Your task to perform on an android device: Open CNN.com Image 0: 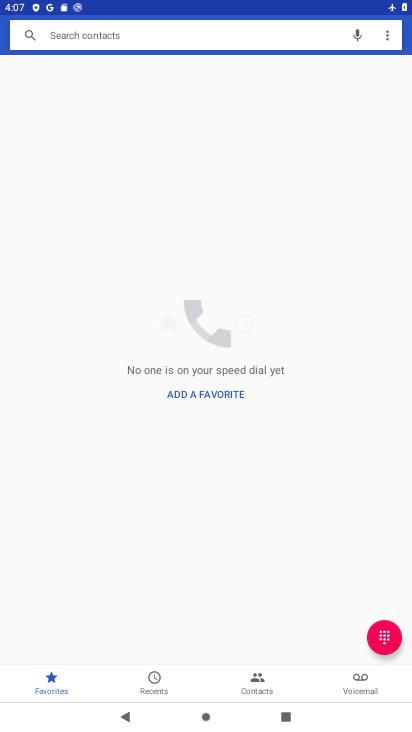
Step 0: press home button
Your task to perform on an android device: Open CNN.com Image 1: 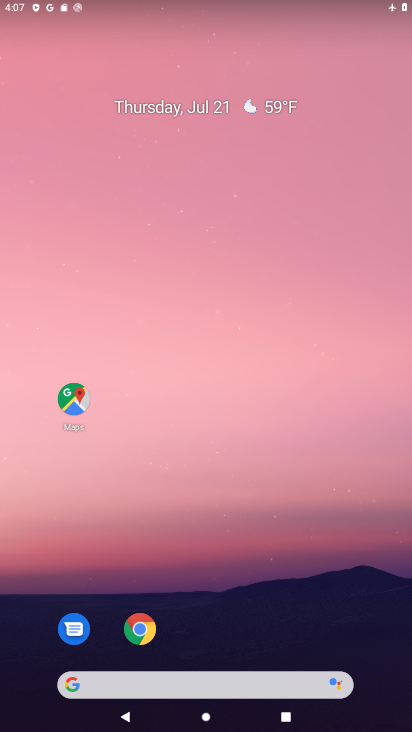
Step 1: click (223, 681)
Your task to perform on an android device: Open CNN.com Image 2: 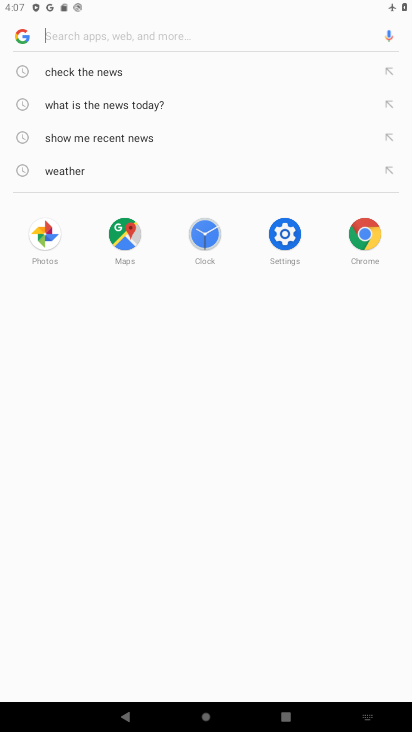
Step 2: type "cnn.com"
Your task to perform on an android device: Open CNN.com Image 3: 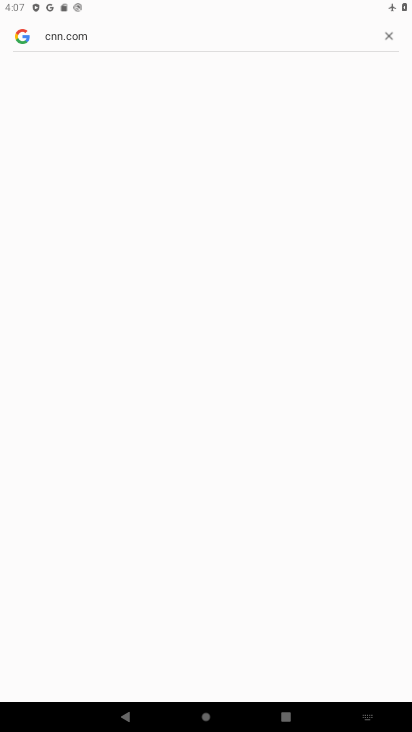
Step 3: click (124, 24)
Your task to perform on an android device: Open CNN.com Image 4: 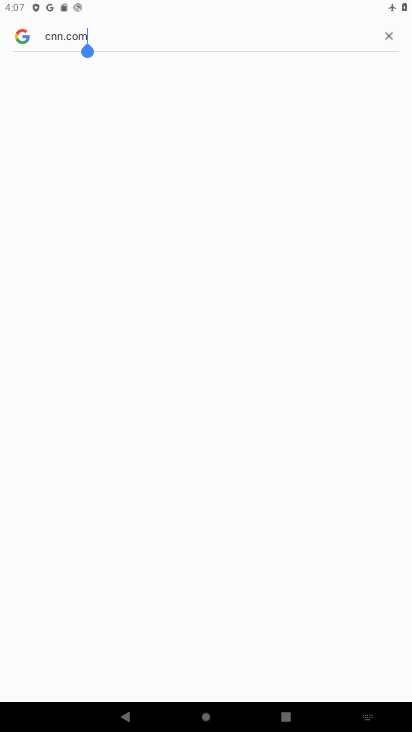
Step 4: type ""
Your task to perform on an android device: Open CNN.com Image 5: 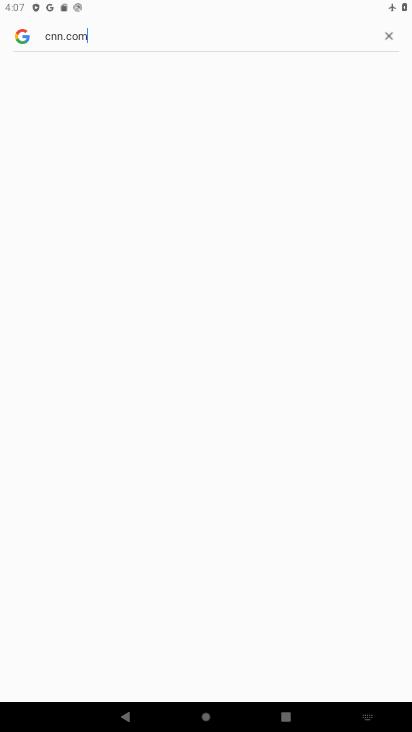
Step 5: task complete